Your task to perform on an android device: Open Amazon Image 0: 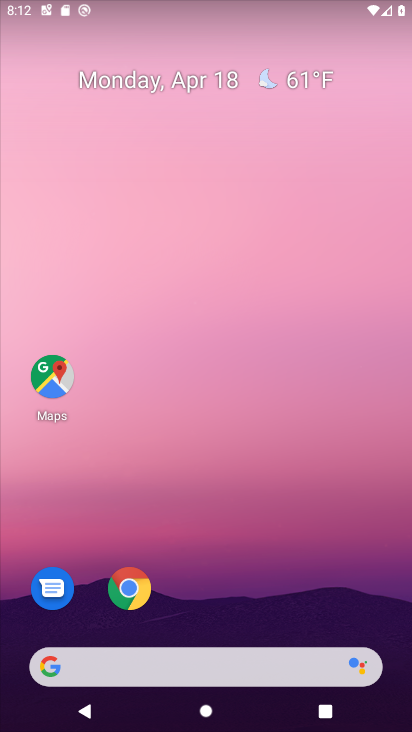
Step 0: click (123, 582)
Your task to perform on an android device: Open Amazon Image 1: 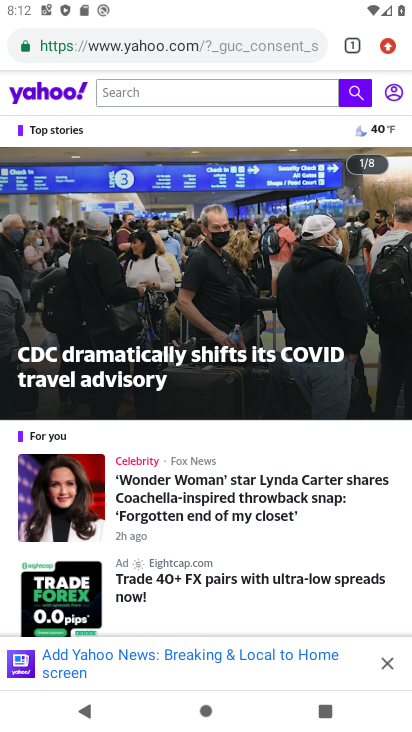
Step 1: click (388, 43)
Your task to perform on an android device: Open Amazon Image 2: 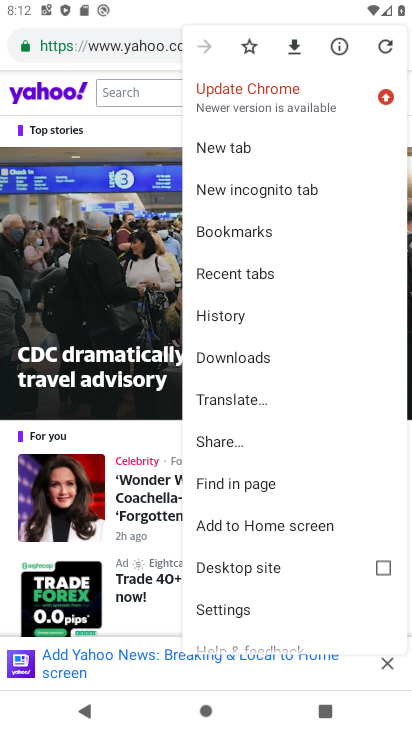
Step 2: click (217, 148)
Your task to perform on an android device: Open Amazon Image 3: 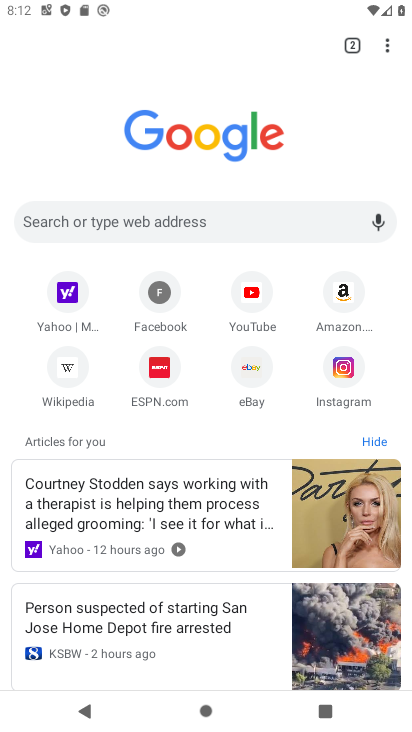
Step 3: click (339, 291)
Your task to perform on an android device: Open Amazon Image 4: 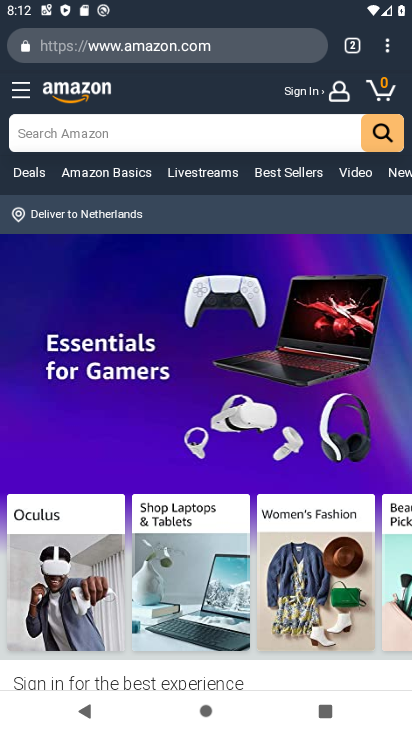
Step 4: task complete